Your task to perform on an android device: Open the music app Image 0: 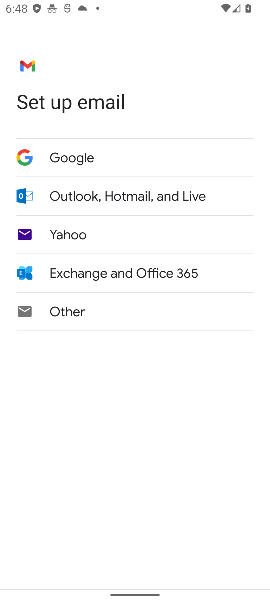
Step 0: press home button
Your task to perform on an android device: Open the music app Image 1: 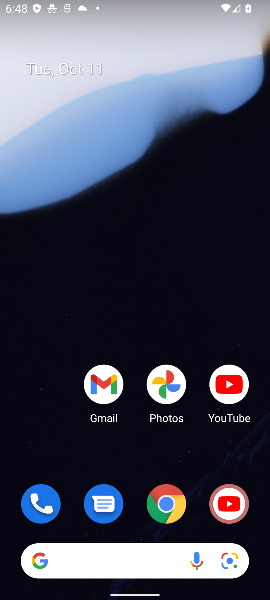
Step 1: drag from (138, 419) to (178, 0)
Your task to perform on an android device: Open the music app Image 2: 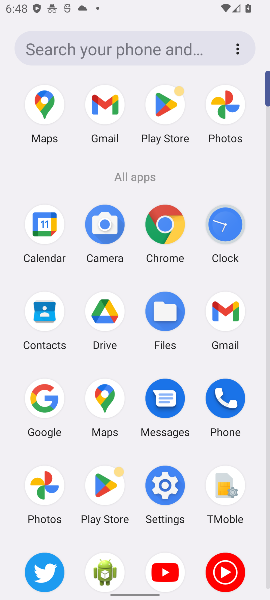
Step 2: drag from (156, 467) to (208, 86)
Your task to perform on an android device: Open the music app Image 3: 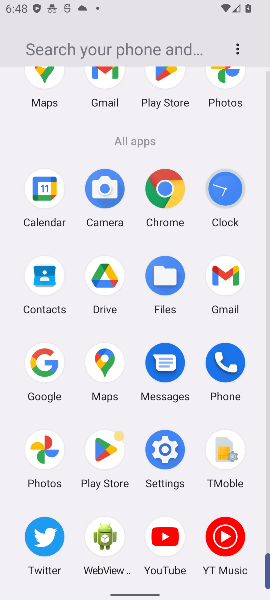
Step 3: drag from (168, 491) to (209, 50)
Your task to perform on an android device: Open the music app Image 4: 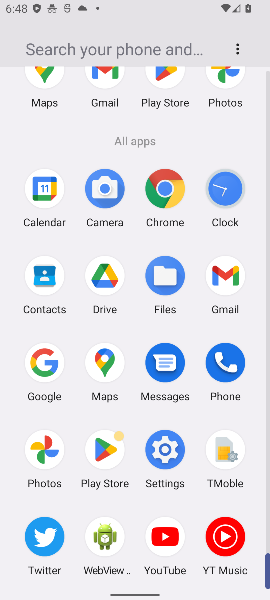
Step 4: click (230, 535)
Your task to perform on an android device: Open the music app Image 5: 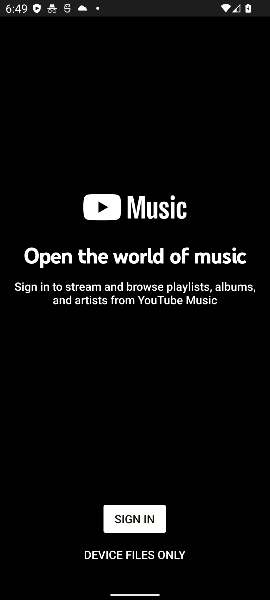
Step 5: task complete